Your task to perform on an android device: check google app version Image 0: 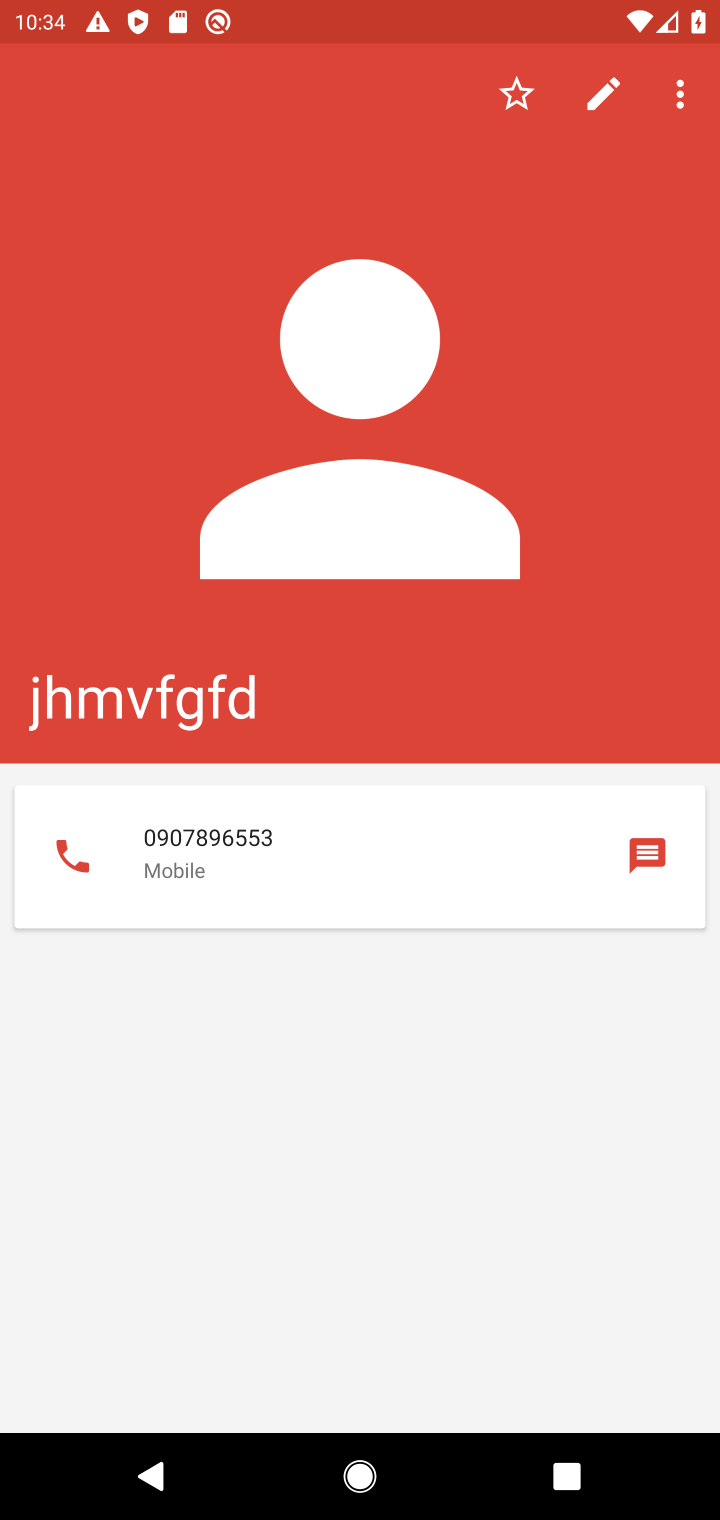
Step 0: press home button
Your task to perform on an android device: check google app version Image 1: 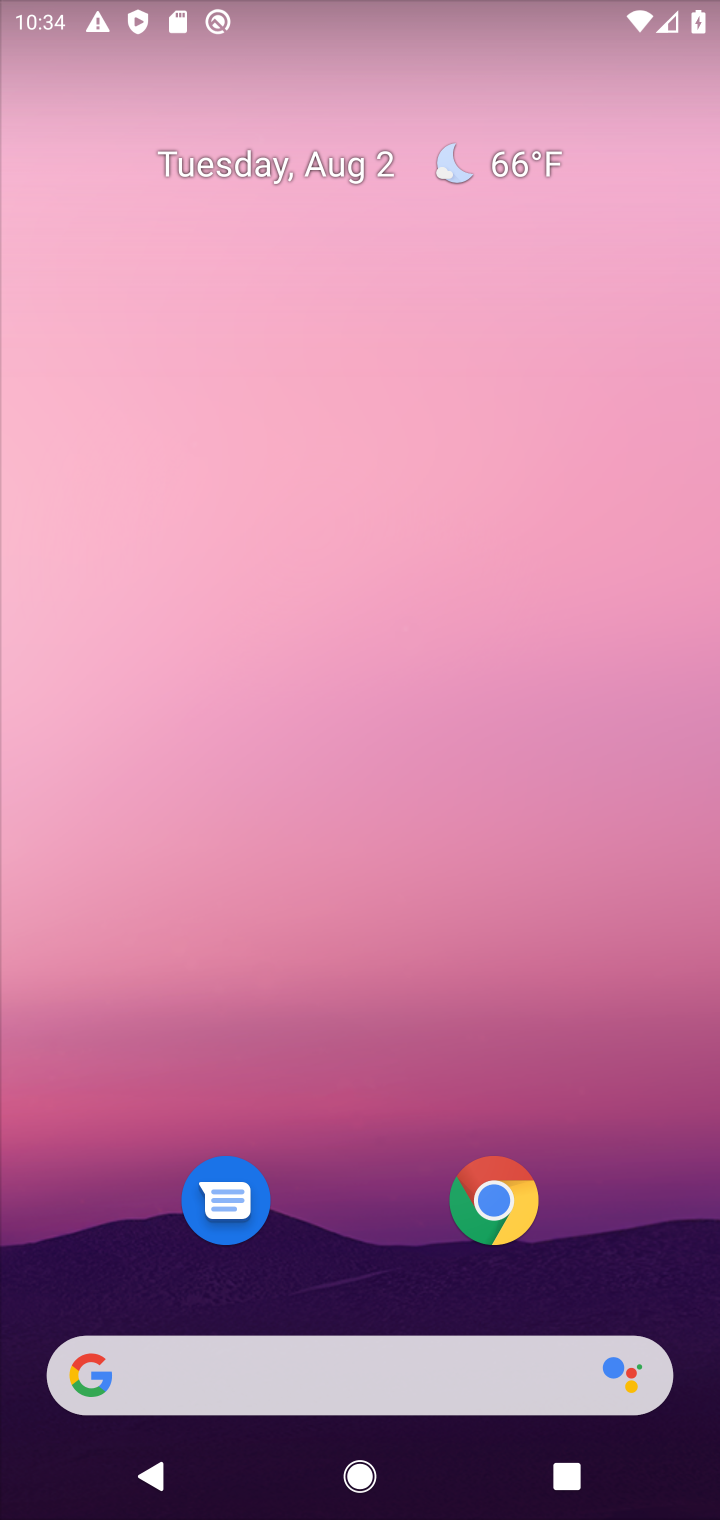
Step 1: click (496, 1196)
Your task to perform on an android device: check google app version Image 2: 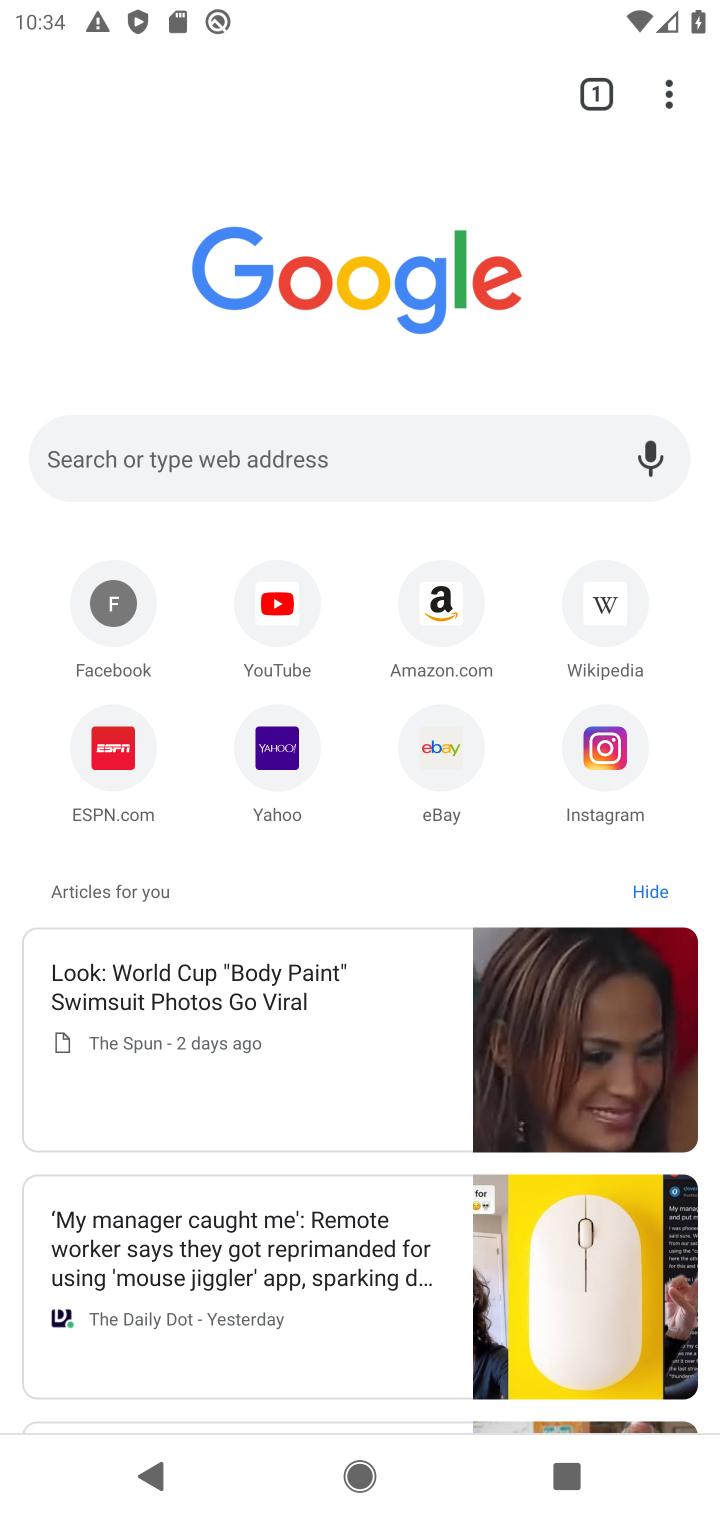
Step 2: click (672, 112)
Your task to perform on an android device: check google app version Image 3: 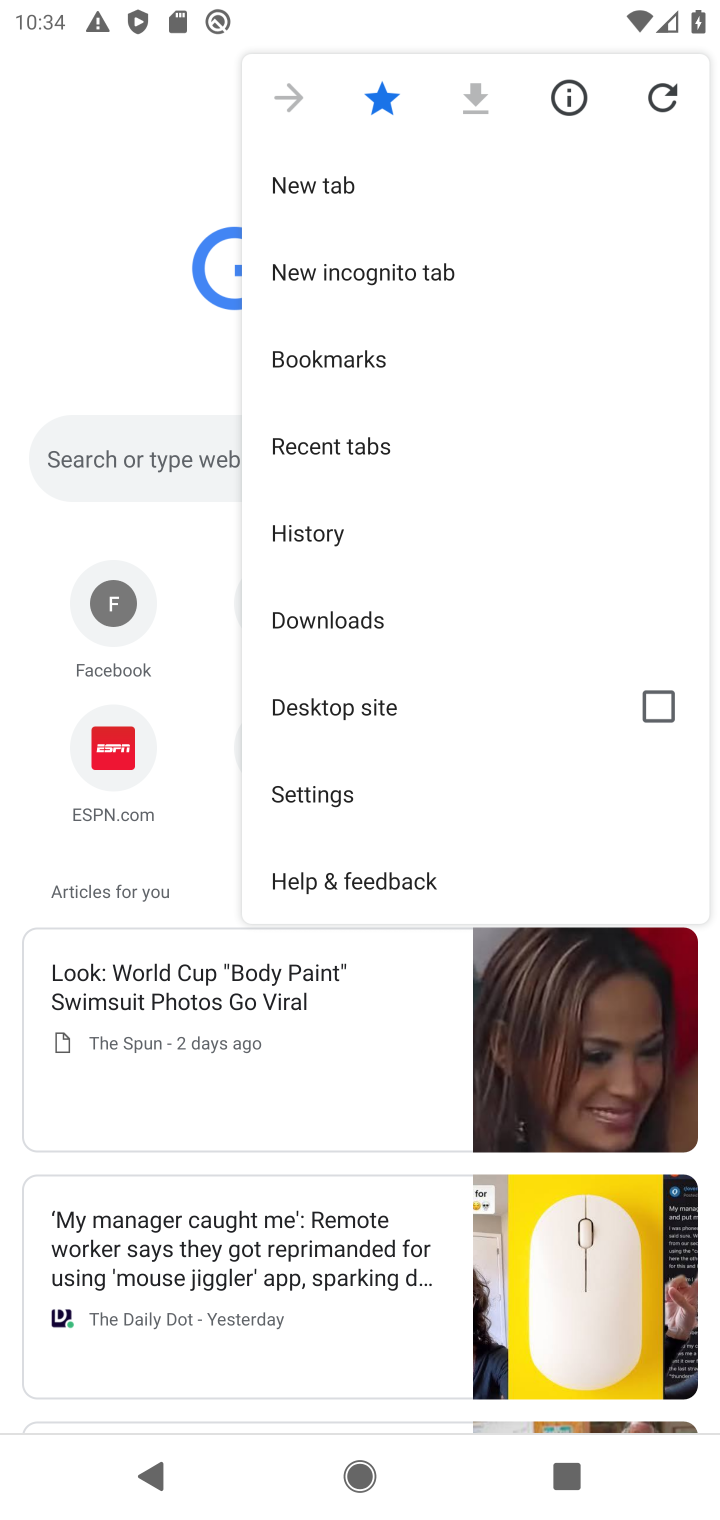
Step 3: click (315, 791)
Your task to perform on an android device: check google app version Image 4: 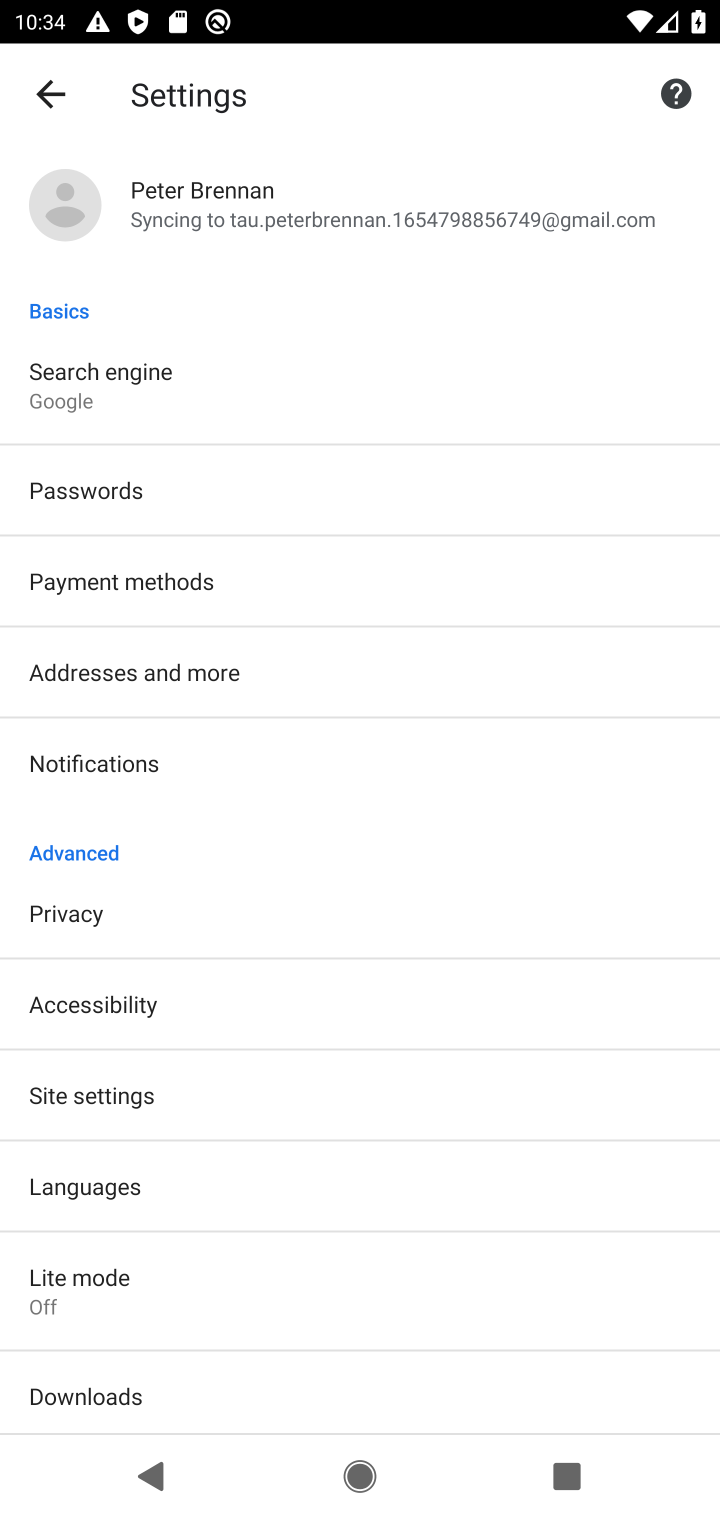
Step 4: drag from (326, 1304) to (305, 418)
Your task to perform on an android device: check google app version Image 5: 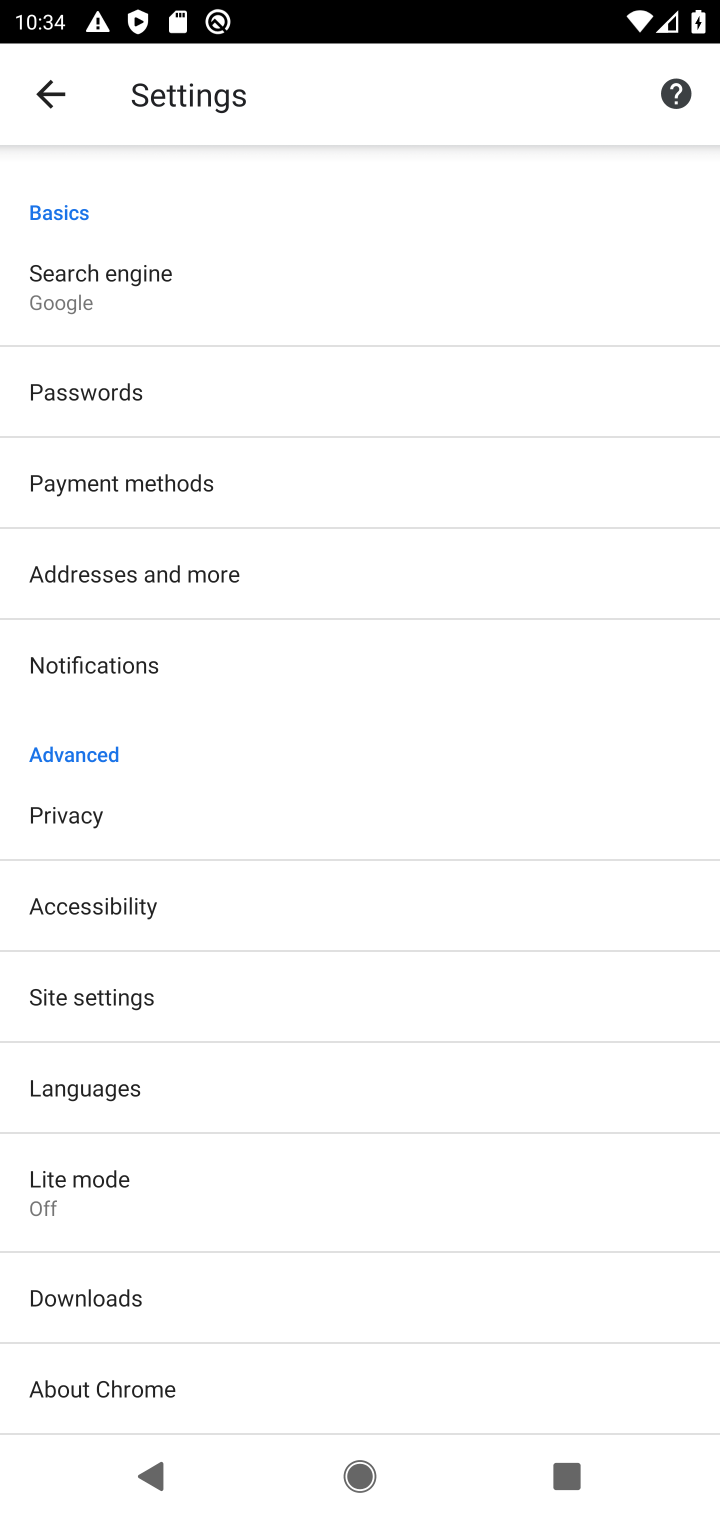
Step 5: click (79, 1378)
Your task to perform on an android device: check google app version Image 6: 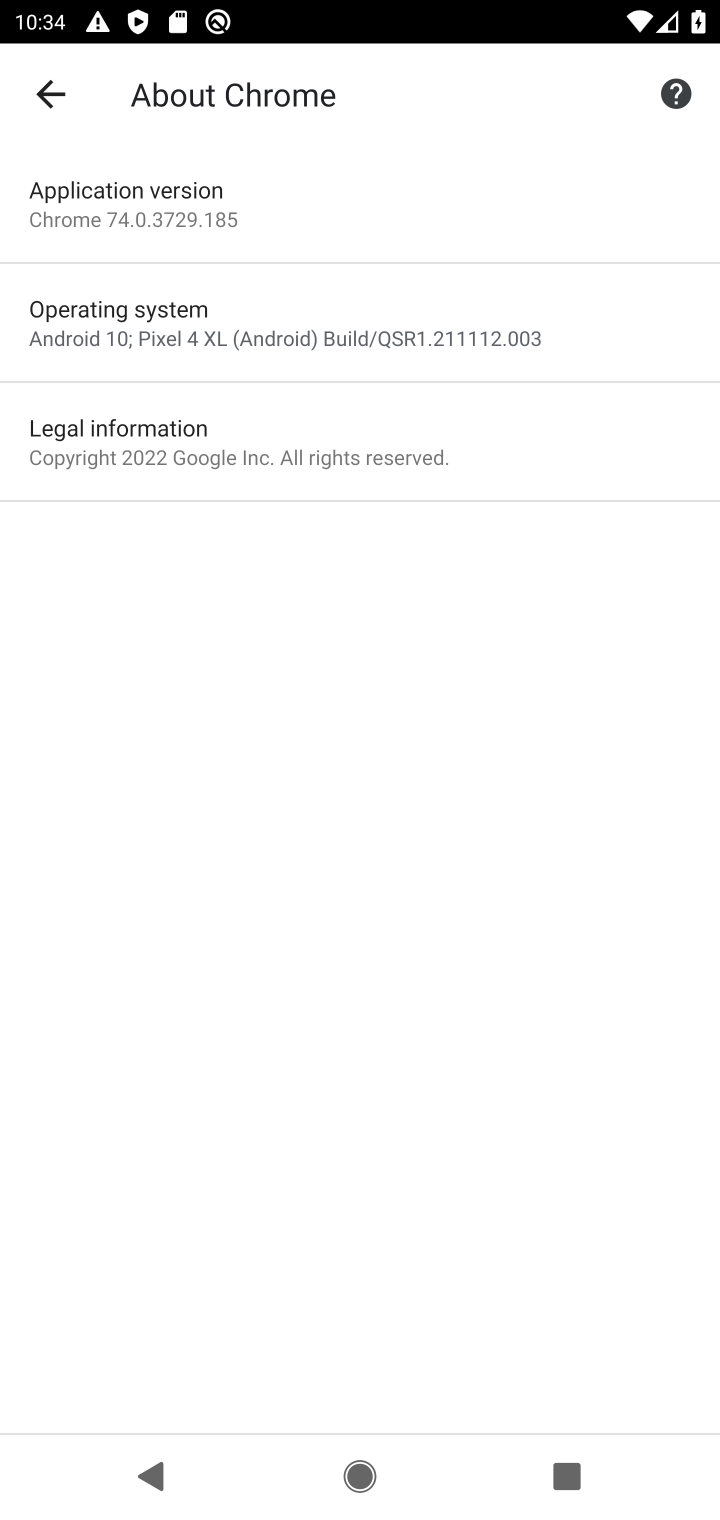
Step 6: click (181, 178)
Your task to perform on an android device: check google app version Image 7: 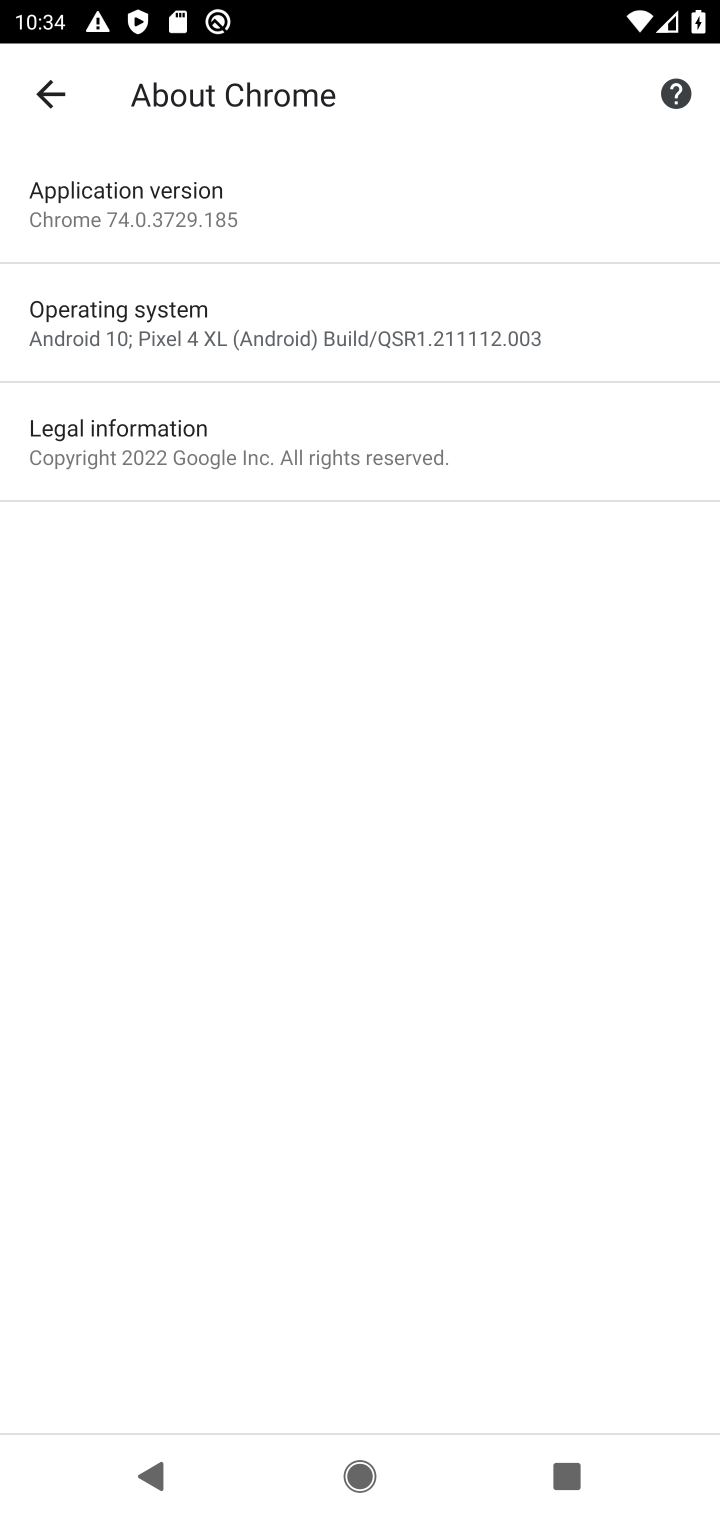
Step 7: task complete